Your task to perform on an android device: Check the news Image 0: 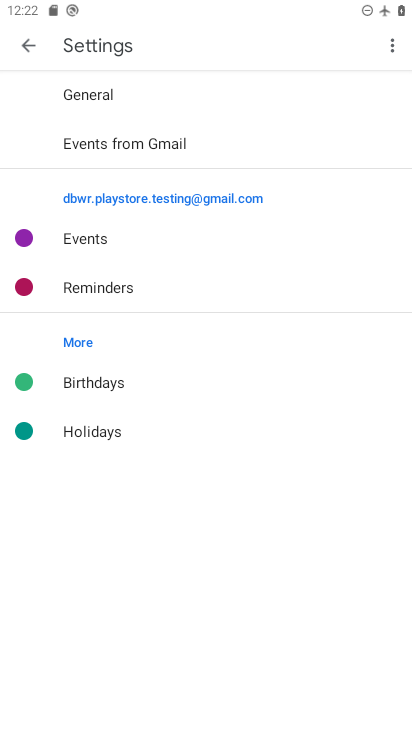
Step 0: press home button
Your task to perform on an android device: Check the news Image 1: 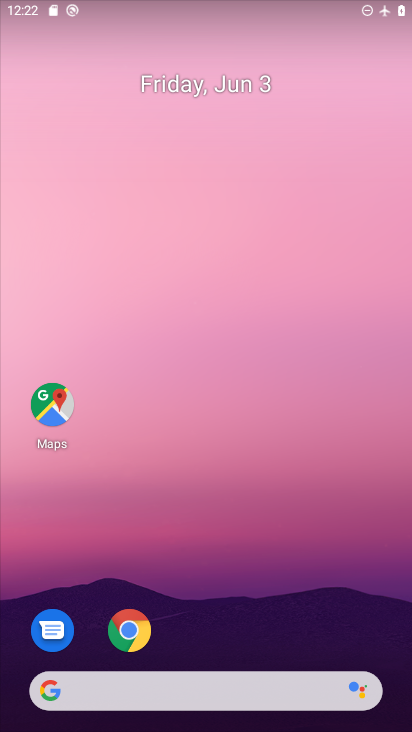
Step 1: click (268, 685)
Your task to perform on an android device: Check the news Image 2: 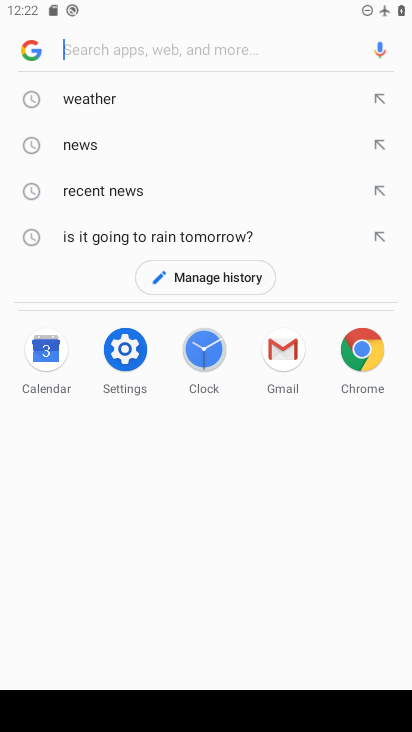
Step 2: click (93, 150)
Your task to perform on an android device: Check the news Image 3: 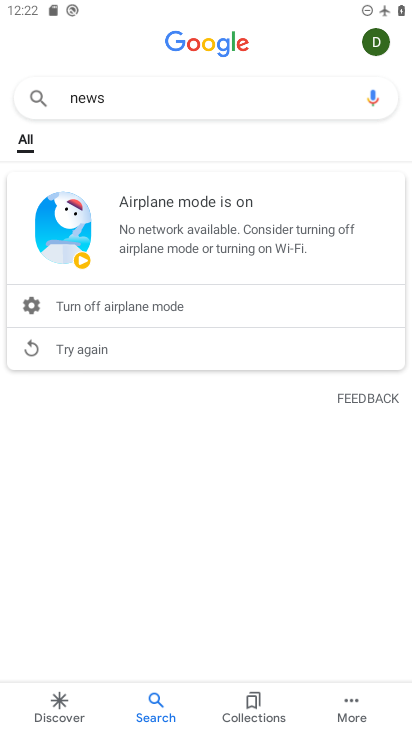
Step 3: task complete